Your task to perform on an android device: Open sound settings Image 0: 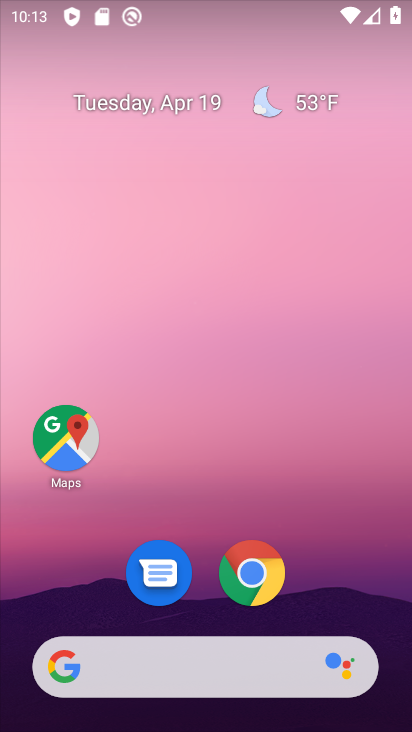
Step 0: drag from (205, 726) to (205, 119)
Your task to perform on an android device: Open sound settings Image 1: 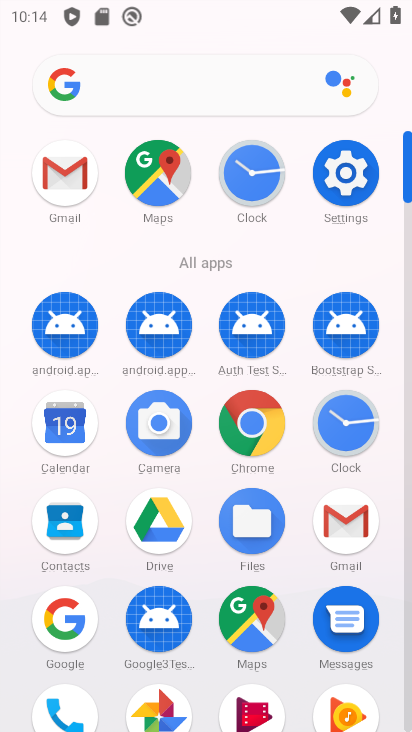
Step 1: click (341, 172)
Your task to perform on an android device: Open sound settings Image 2: 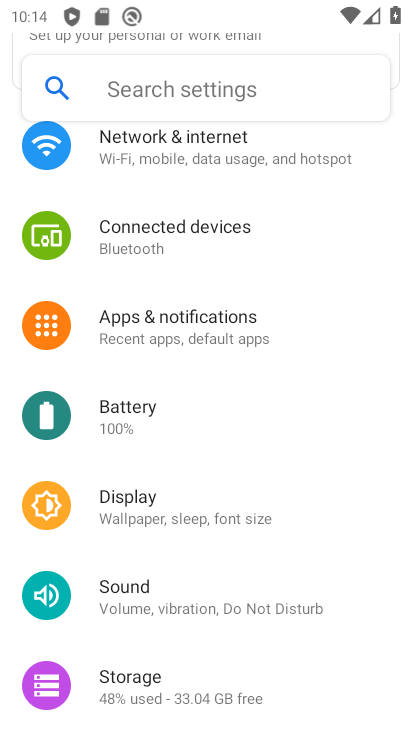
Step 2: click (127, 598)
Your task to perform on an android device: Open sound settings Image 3: 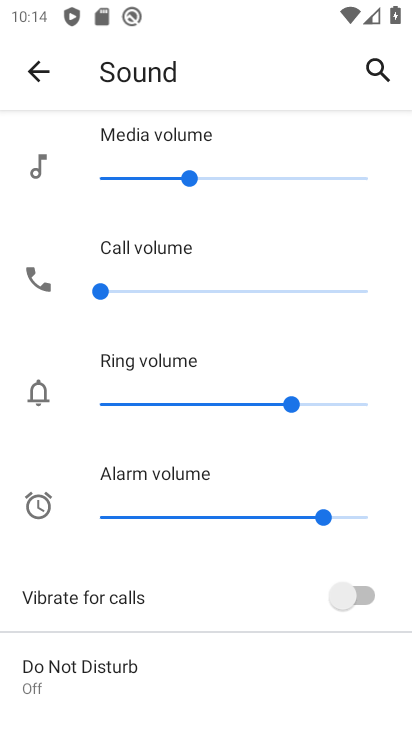
Step 3: task complete